Your task to perform on an android device: Open Maps and search for coffee Image 0: 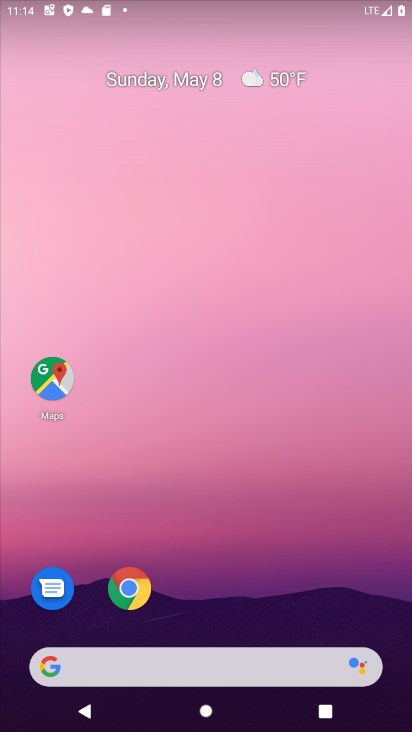
Step 0: click (57, 387)
Your task to perform on an android device: Open Maps and search for coffee Image 1: 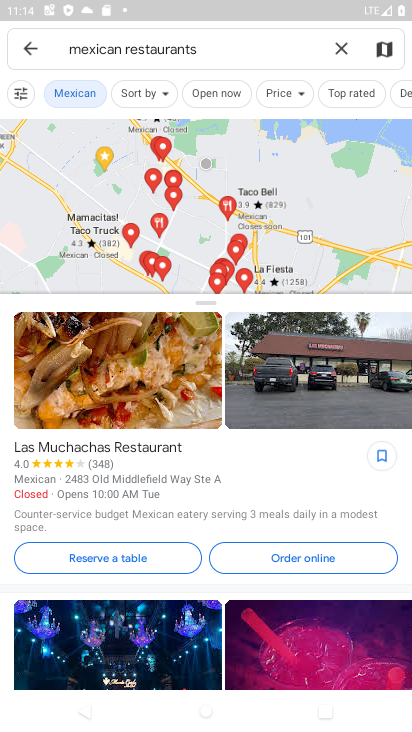
Step 1: click (341, 45)
Your task to perform on an android device: Open Maps and search for coffee Image 2: 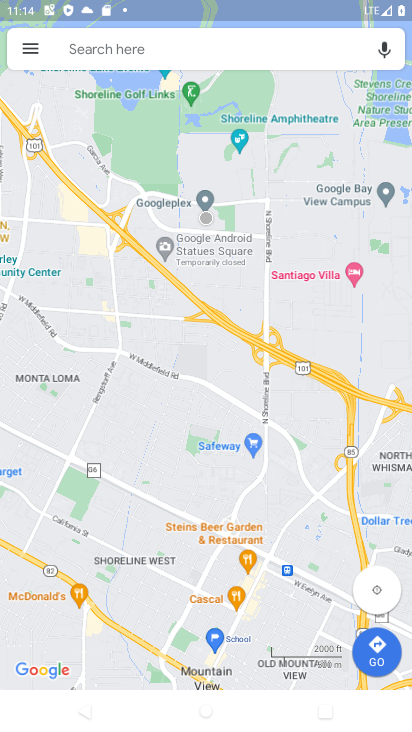
Step 2: click (208, 52)
Your task to perform on an android device: Open Maps and search for coffee Image 3: 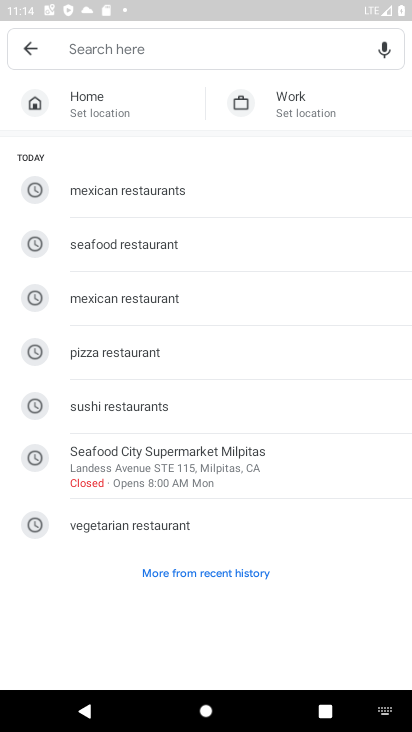
Step 3: type "coffee"
Your task to perform on an android device: Open Maps and search for coffee Image 4: 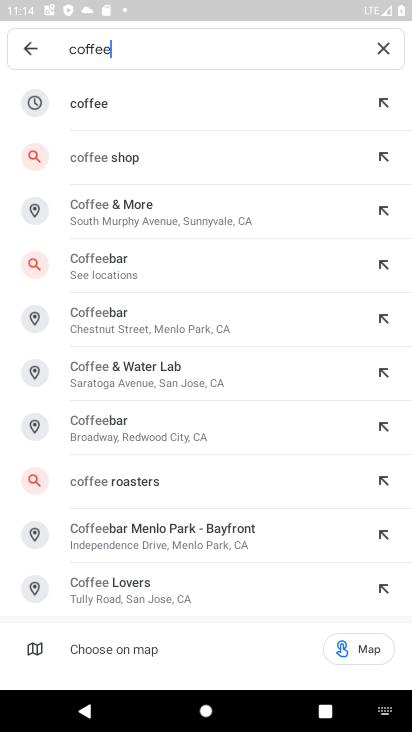
Step 4: click (128, 99)
Your task to perform on an android device: Open Maps and search for coffee Image 5: 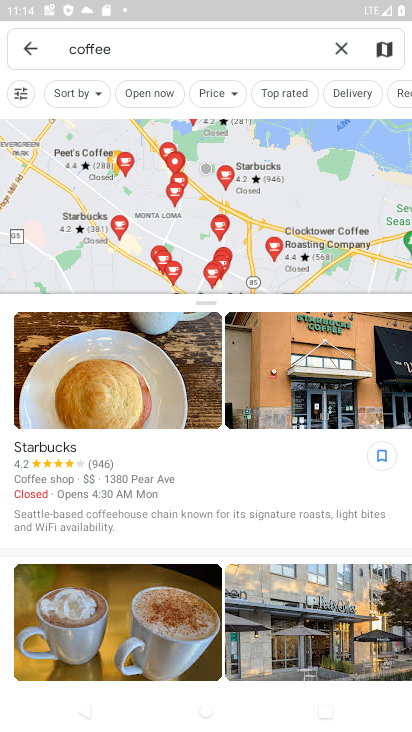
Step 5: task complete